Your task to perform on an android device: stop showing notifications on the lock screen Image 0: 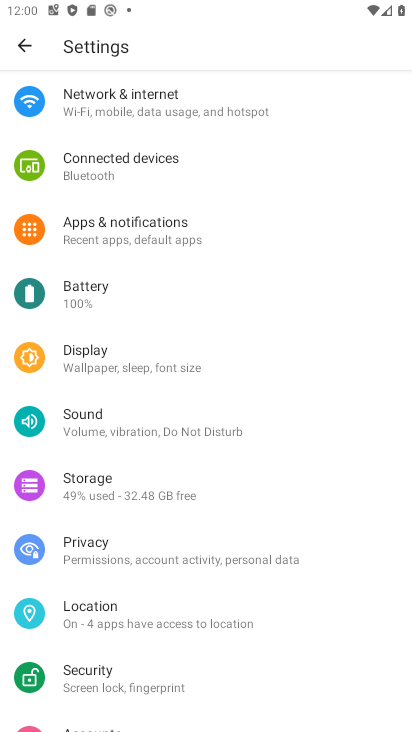
Step 0: click (129, 234)
Your task to perform on an android device: stop showing notifications on the lock screen Image 1: 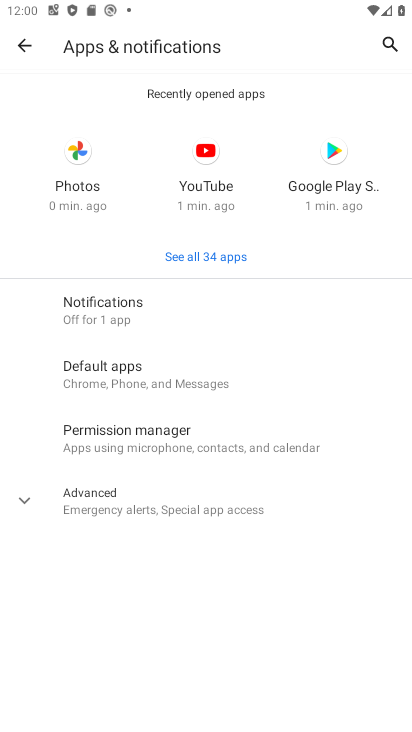
Step 1: click (95, 312)
Your task to perform on an android device: stop showing notifications on the lock screen Image 2: 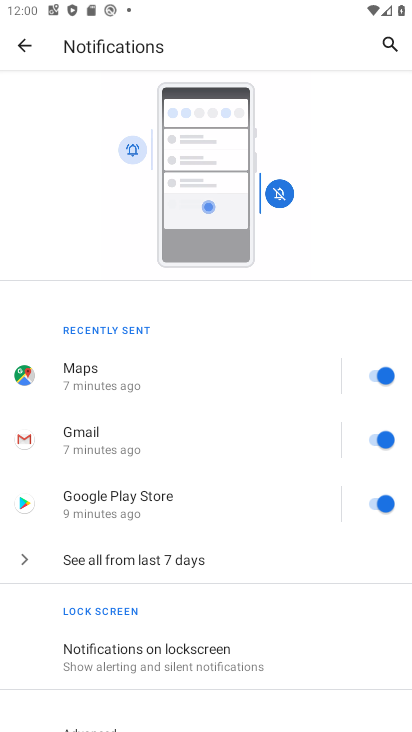
Step 2: drag from (226, 633) to (183, 285)
Your task to perform on an android device: stop showing notifications on the lock screen Image 3: 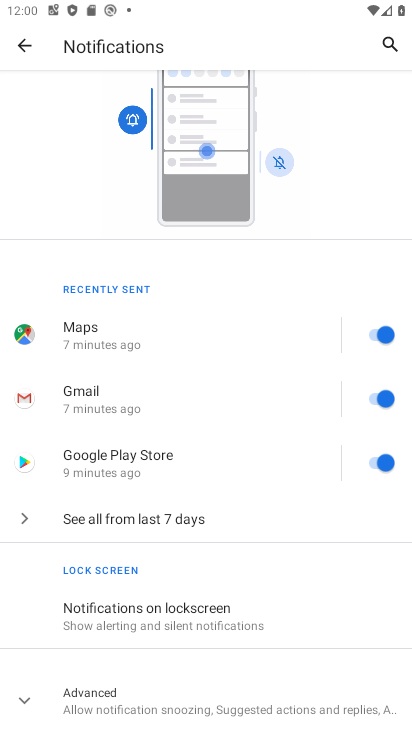
Step 3: click (121, 610)
Your task to perform on an android device: stop showing notifications on the lock screen Image 4: 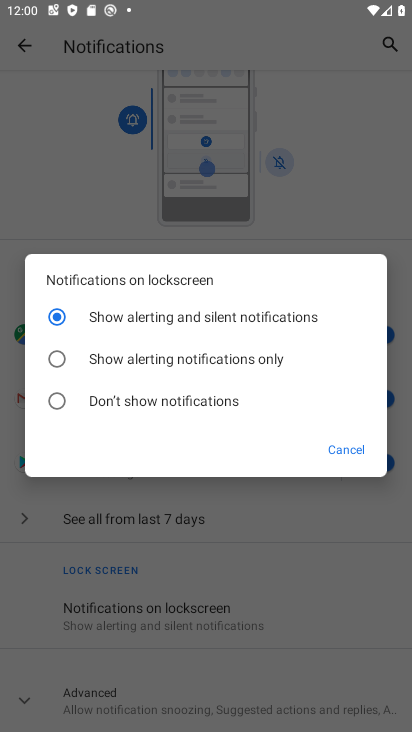
Step 4: click (56, 396)
Your task to perform on an android device: stop showing notifications on the lock screen Image 5: 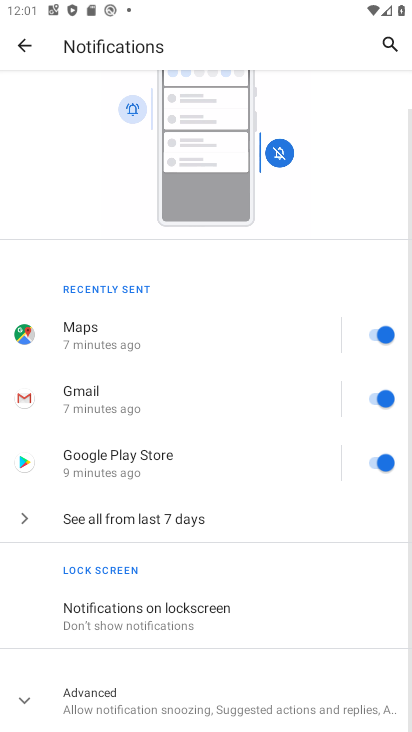
Step 5: task complete